Your task to perform on an android device: toggle airplane mode Image 0: 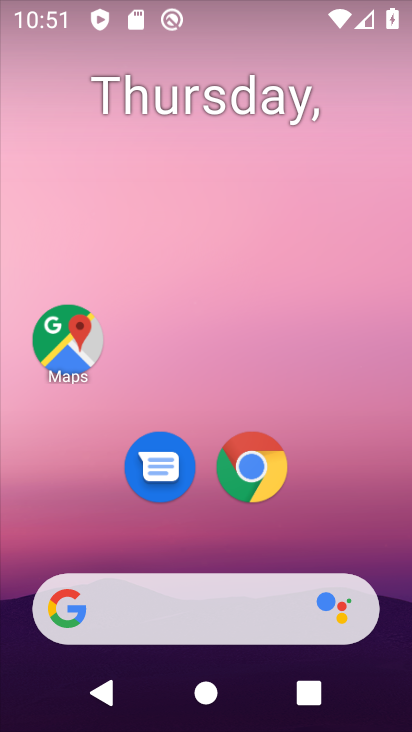
Step 0: drag from (378, 509) to (351, 4)
Your task to perform on an android device: toggle airplane mode Image 1: 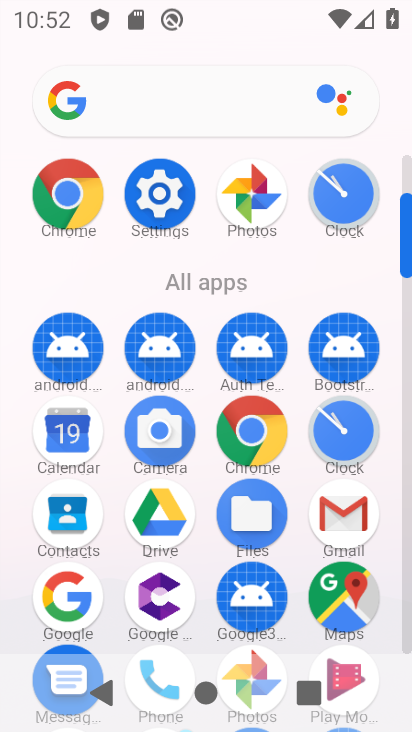
Step 1: click (152, 196)
Your task to perform on an android device: toggle airplane mode Image 2: 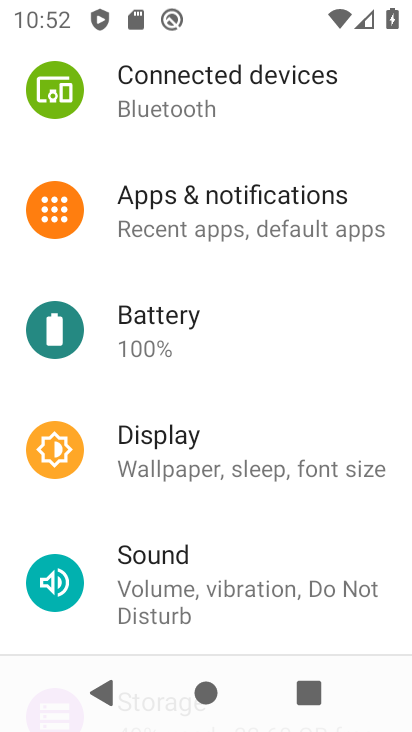
Step 2: drag from (303, 179) to (303, 391)
Your task to perform on an android device: toggle airplane mode Image 3: 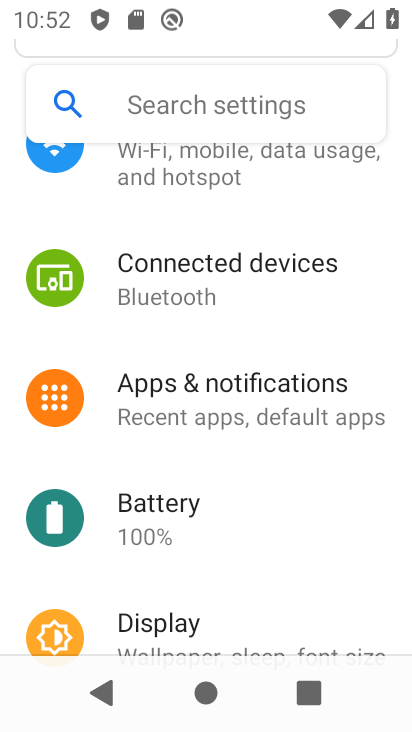
Step 3: drag from (337, 239) to (320, 468)
Your task to perform on an android device: toggle airplane mode Image 4: 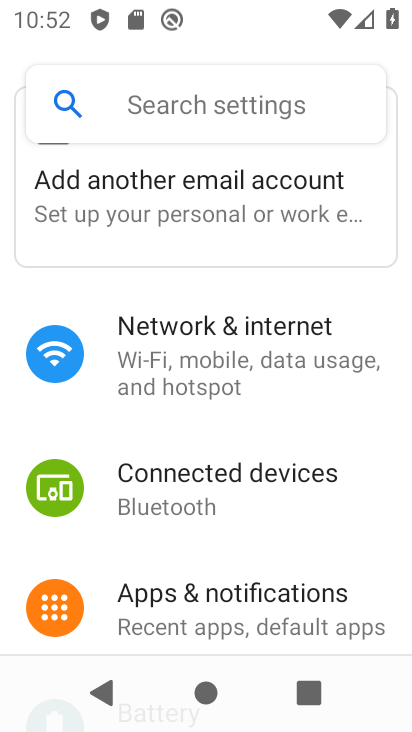
Step 4: click (219, 358)
Your task to perform on an android device: toggle airplane mode Image 5: 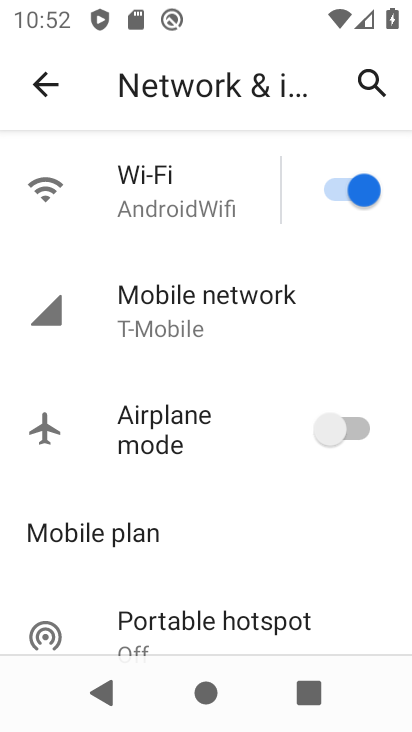
Step 5: click (325, 429)
Your task to perform on an android device: toggle airplane mode Image 6: 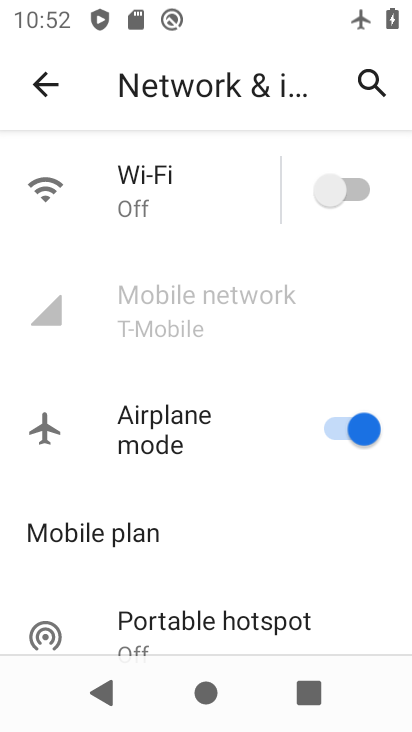
Step 6: task complete